Your task to perform on an android device: Open calendar and show me the second week of next month Image 0: 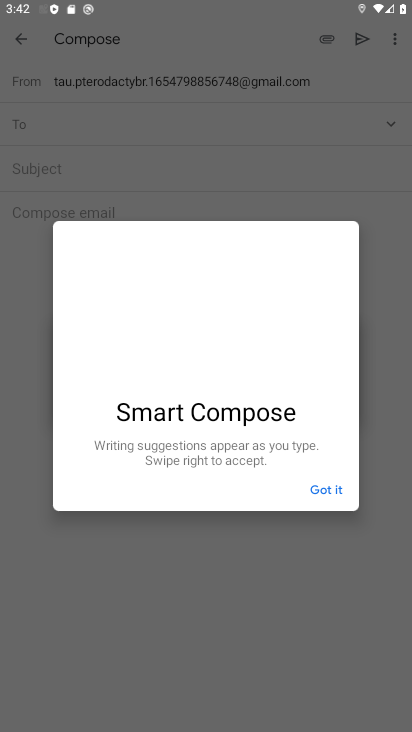
Step 0: press home button
Your task to perform on an android device: Open calendar and show me the second week of next month Image 1: 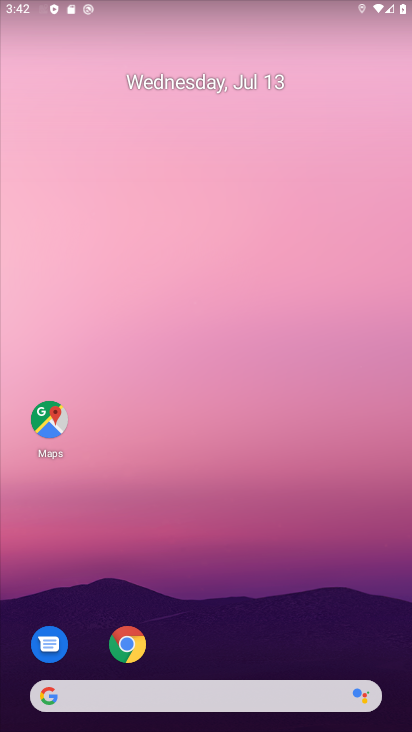
Step 1: click (130, 642)
Your task to perform on an android device: Open calendar and show me the second week of next month Image 2: 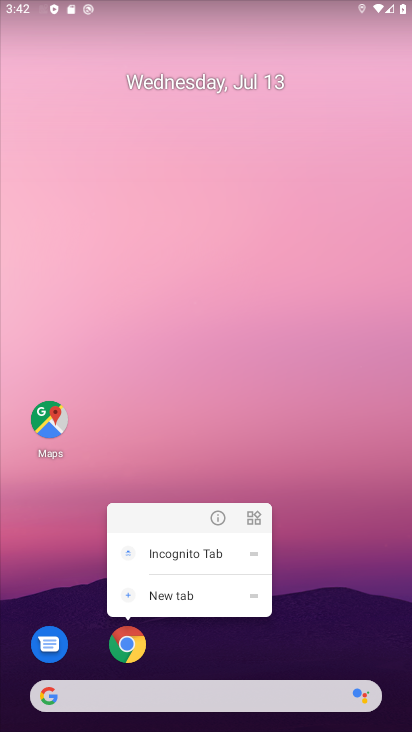
Step 2: drag from (387, 643) to (289, 122)
Your task to perform on an android device: Open calendar and show me the second week of next month Image 3: 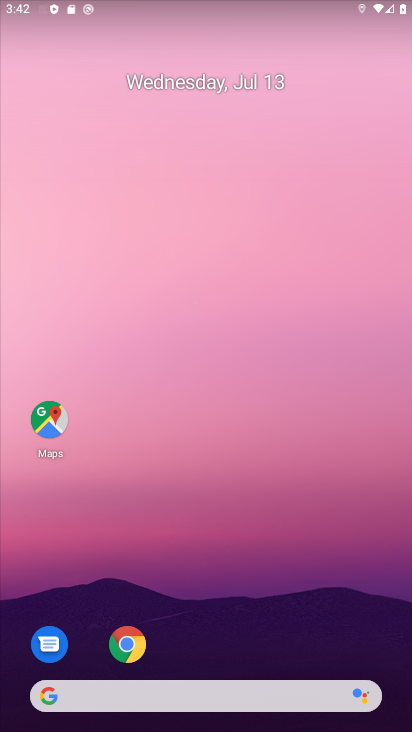
Step 3: drag from (398, 667) to (290, 86)
Your task to perform on an android device: Open calendar and show me the second week of next month Image 4: 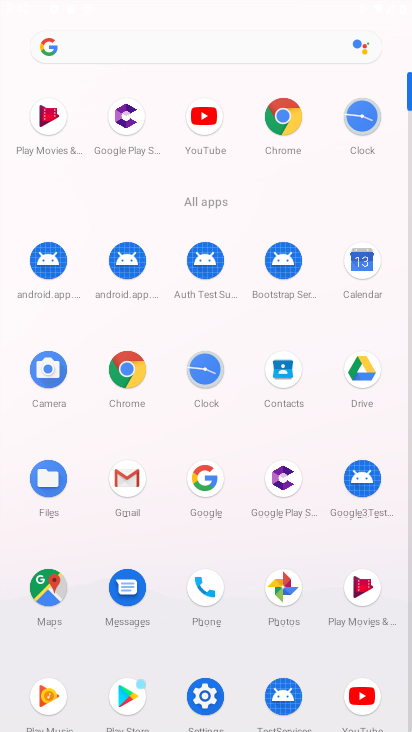
Step 4: click (368, 265)
Your task to perform on an android device: Open calendar and show me the second week of next month Image 5: 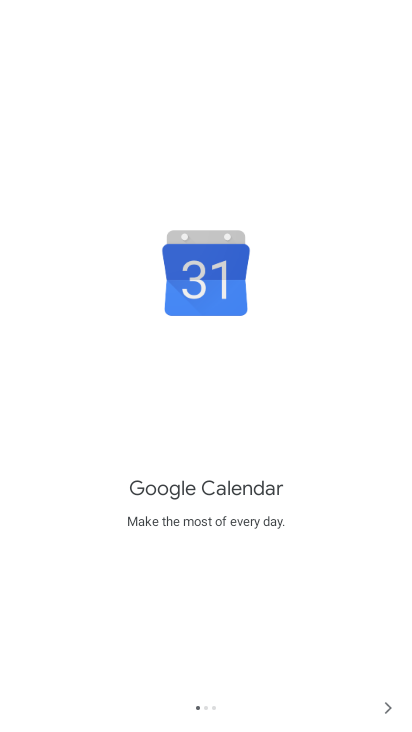
Step 5: click (387, 718)
Your task to perform on an android device: Open calendar and show me the second week of next month Image 6: 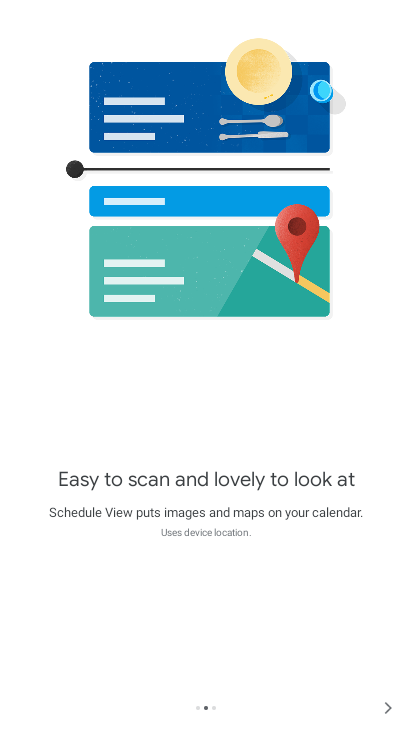
Step 6: click (384, 709)
Your task to perform on an android device: Open calendar and show me the second week of next month Image 7: 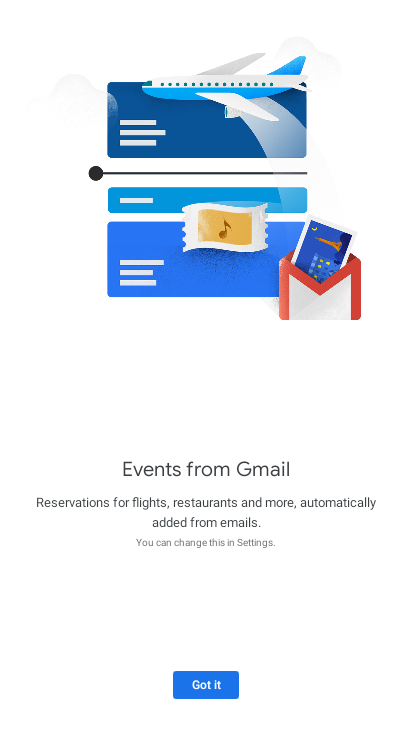
Step 7: click (219, 693)
Your task to perform on an android device: Open calendar and show me the second week of next month Image 8: 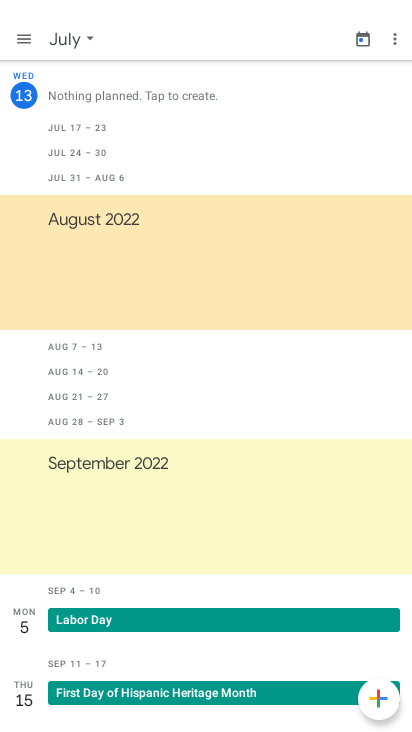
Step 8: click (19, 43)
Your task to perform on an android device: Open calendar and show me the second week of next month Image 9: 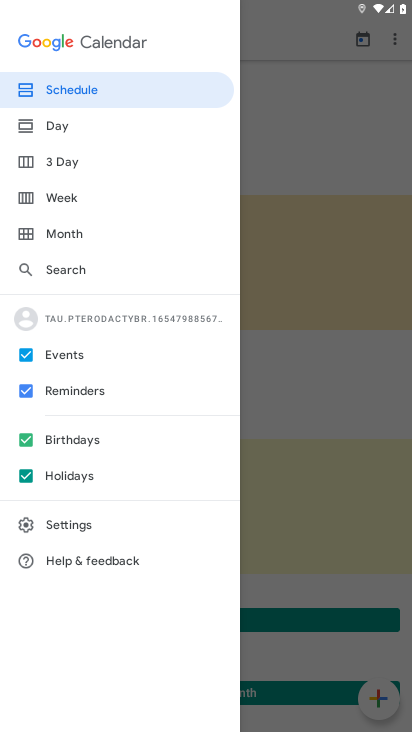
Step 9: click (64, 203)
Your task to perform on an android device: Open calendar and show me the second week of next month Image 10: 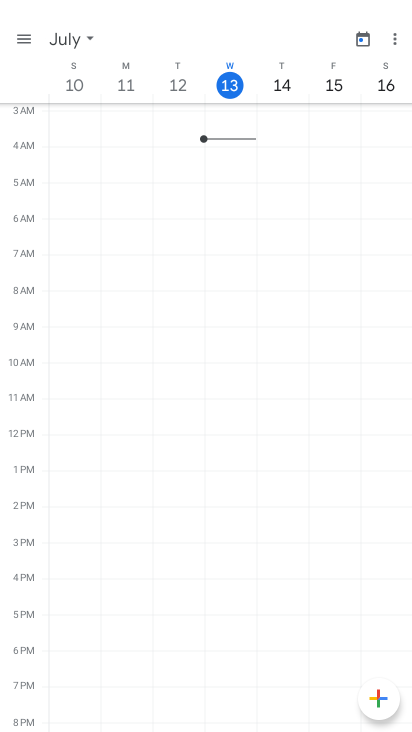
Step 10: click (81, 39)
Your task to perform on an android device: Open calendar and show me the second week of next month Image 11: 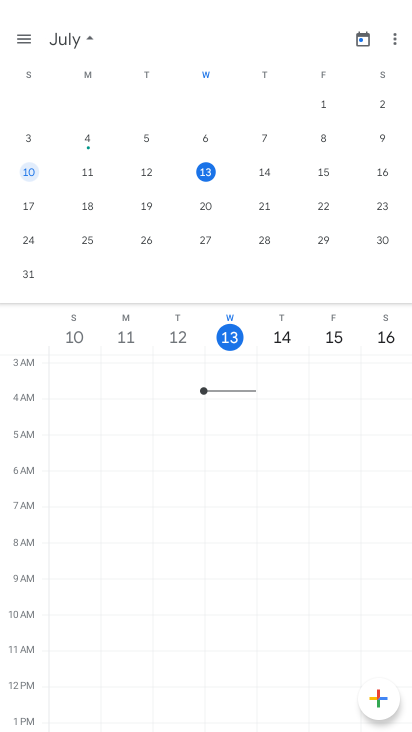
Step 11: drag from (392, 213) to (4, 226)
Your task to perform on an android device: Open calendar and show me the second week of next month Image 12: 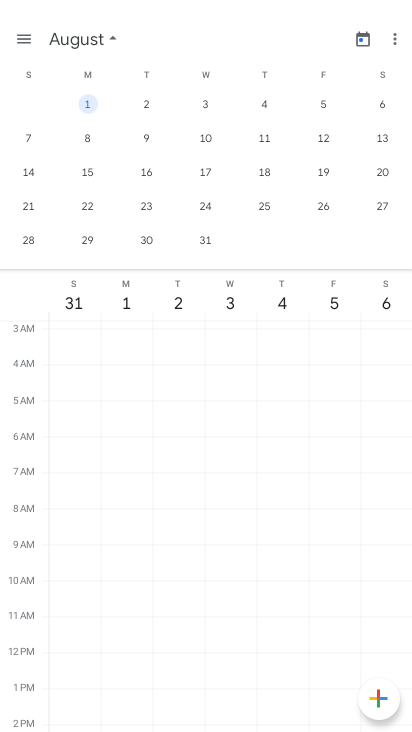
Step 12: click (210, 140)
Your task to perform on an android device: Open calendar and show me the second week of next month Image 13: 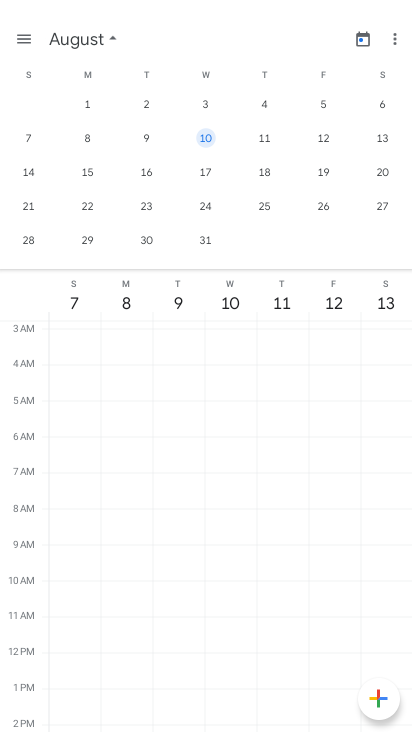
Step 13: task complete